Your task to perform on an android device: add a contact in the contacts app Image 0: 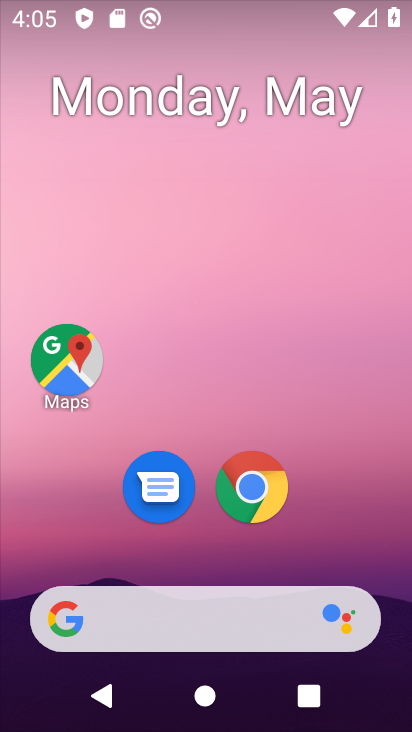
Step 0: drag from (169, 670) to (156, 139)
Your task to perform on an android device: add a contact in the contacts app Image 1: 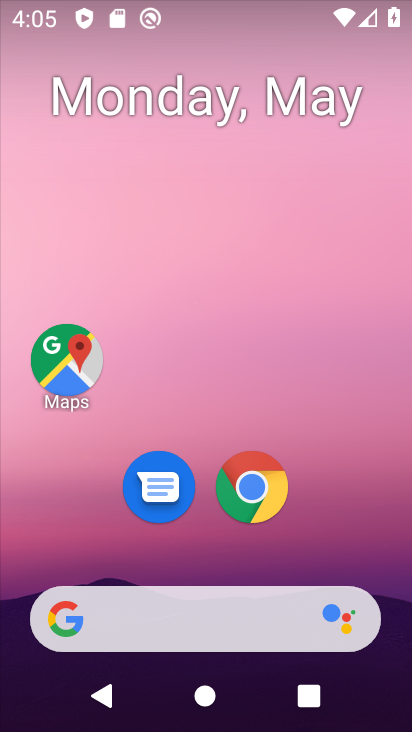
Step 1: drag from (167, 730) to (95, 136)
Your task to perform on an android device: add a contact in the contacts app Image 2: 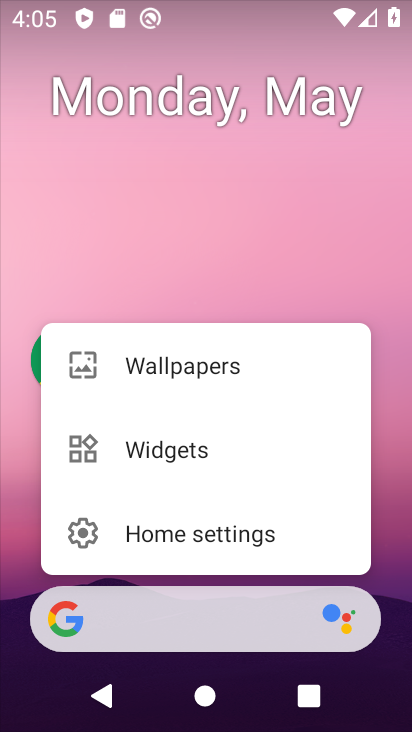
Step 2: press home button
Your task to perform on an android device: add a contact in the contacts app Image 3: 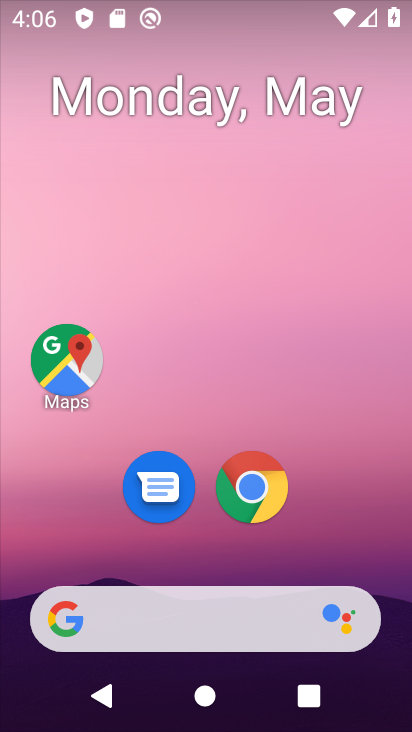
Step 3: drag from (150, 728) to (117, 122)
Your task to perform on an android device: add a contact in the contacts app Image 4: 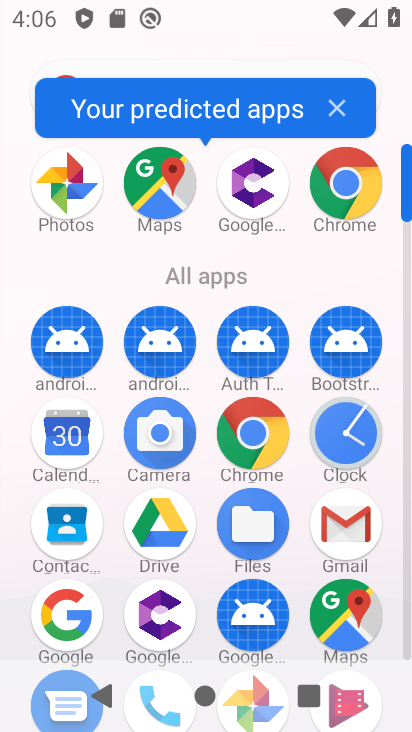
Step 4: click (70, 546)
Your task to perform on an android device: add a contact in the contacts app Image 5: 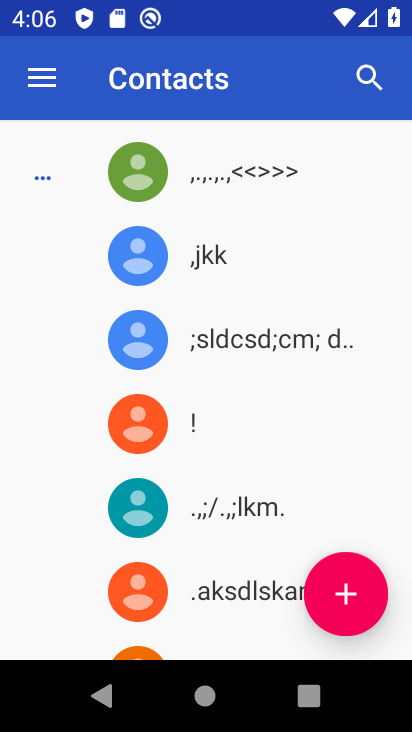
Step 5: click (350, 597)
Your task to perform on an android device: add a contact in the contacts app Image 6: 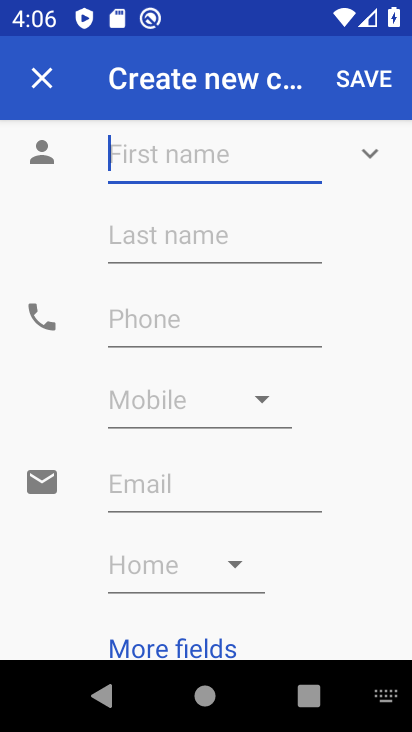
Step 6: type "Ahgsh"
Your task to perform on an android device: add a contact in the contacts app Image 7: 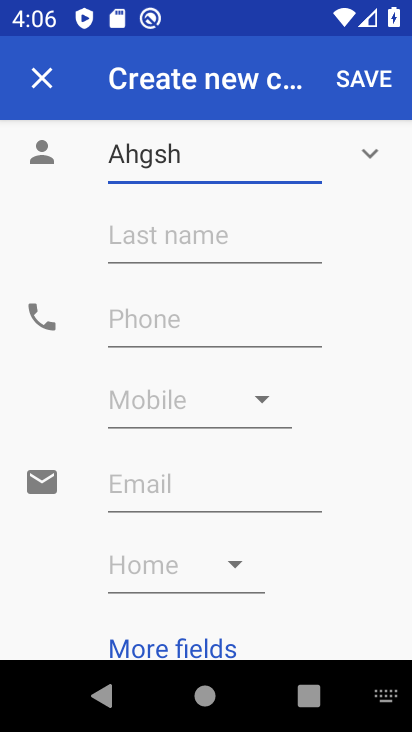
Step 7: click (189, 325)
Your task to perform on an android device: add a contact in the contacts app Image 8: 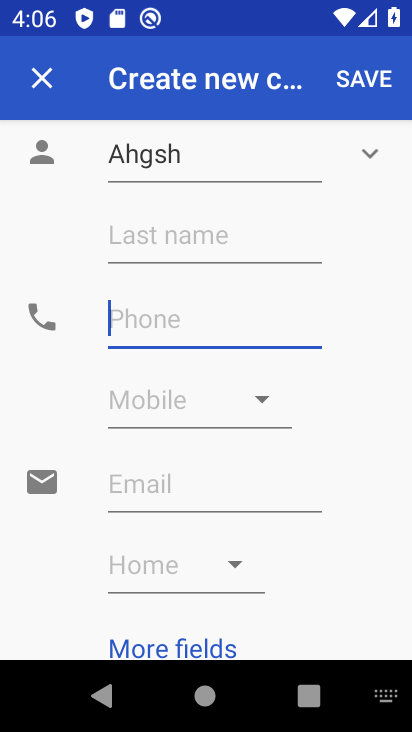
Step 8: type "9817263549"
Your task to perform on an android device: add a contact in the contacts app Image 9: 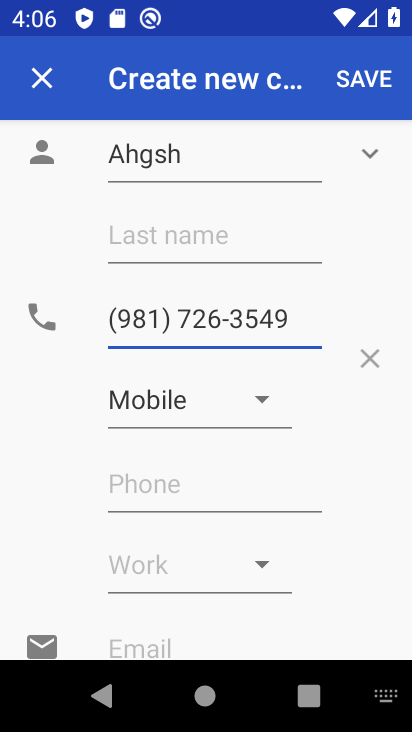
Step 9: click (342, 72)
Your task to perform on an android device: add a contact in the contacts app Image 10: 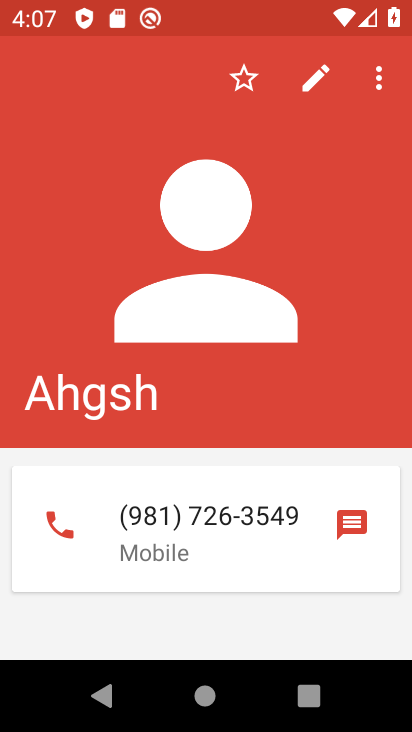
Step 10: task complete